Your task to perform on an android device: Open Chrome and go to settings Image 0: 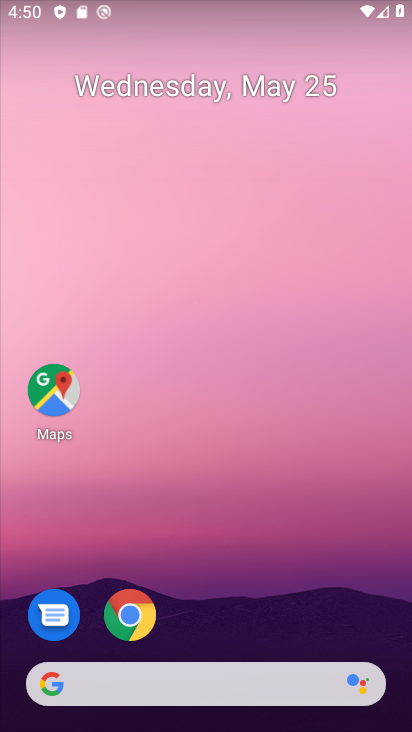
Step 0: click (129, 622)
Your task to perform on an android device: Open Chrome and go to settings Image 1: 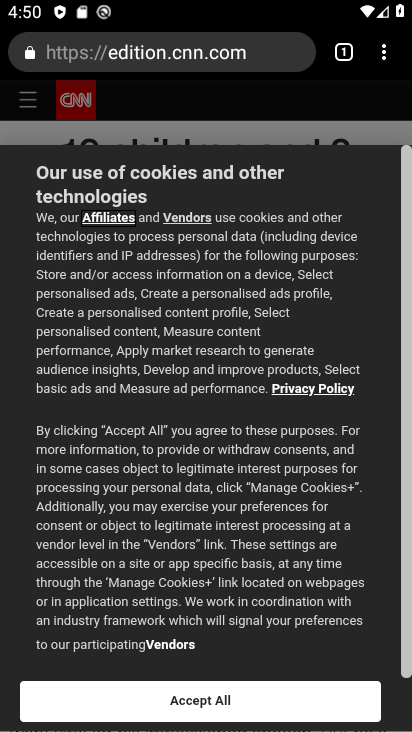
Step 1: task complete